Your task to perform on an android device: check out phone information Image 0: 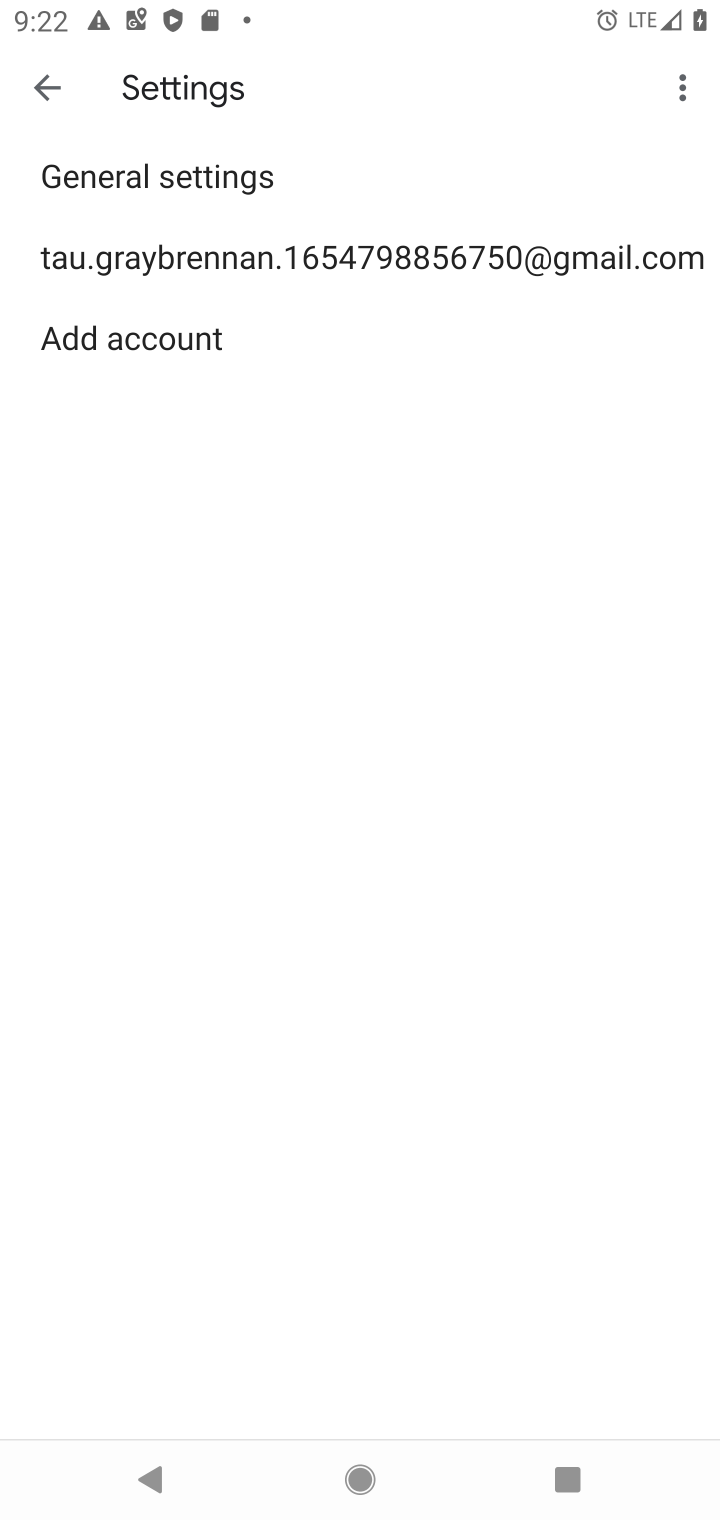
Step 0: press home button
Your task to perform on an android device: check out phone information Image 1: 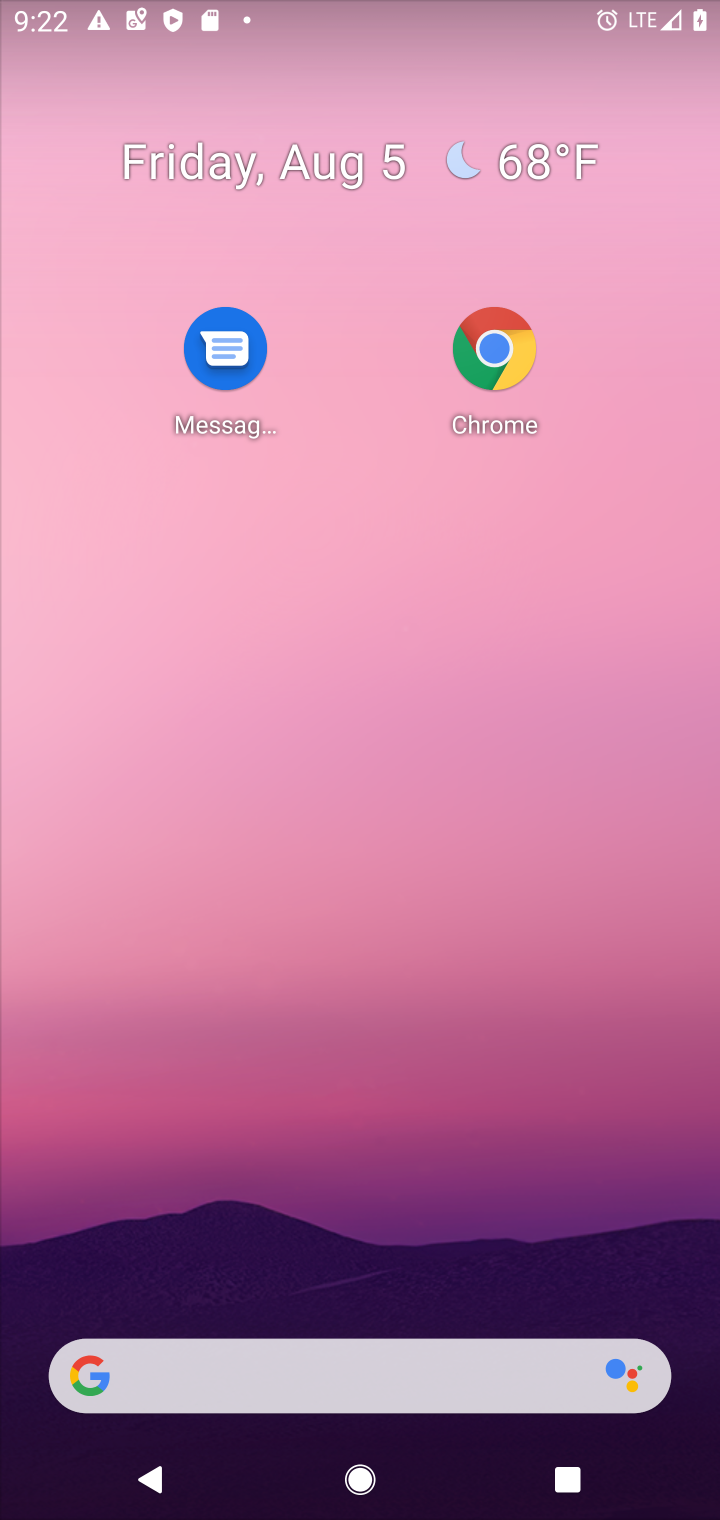
Step 1: drag from (491, 1402) to (452, 288)
Your task to perform on an android device: check out phone information Image 2: 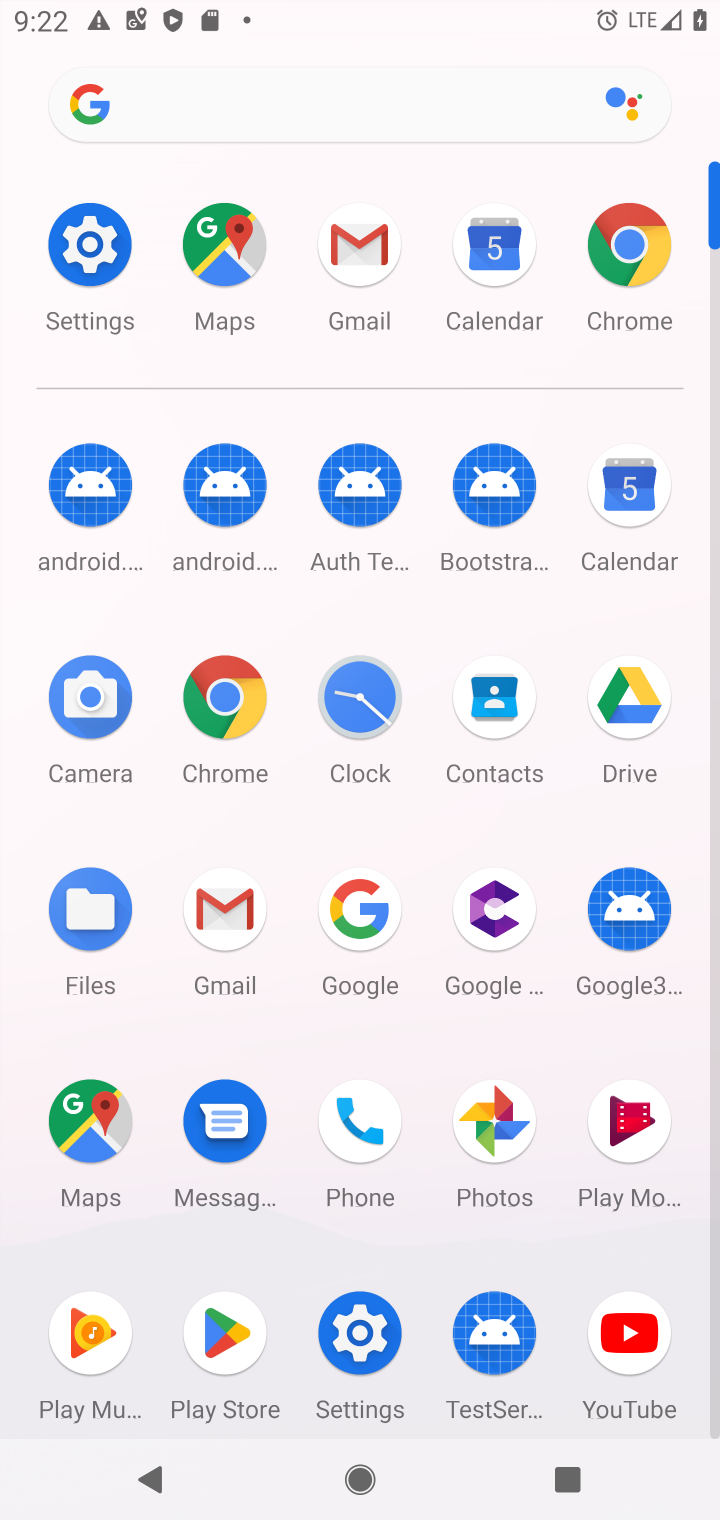
Step 2: click (64, 237)
Your task to perform on an android device: check out phone information Image 3: 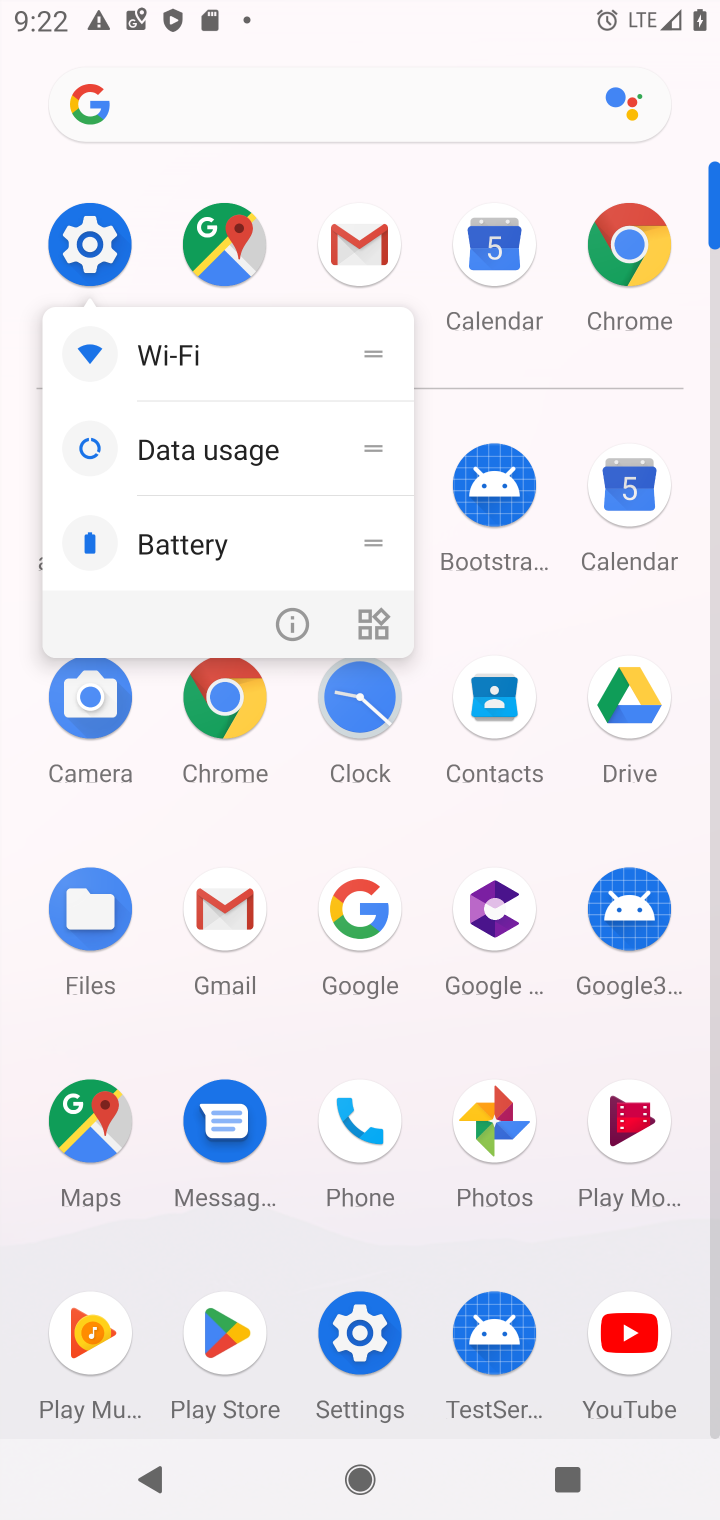
Step 3: click (71, 227)
Your task to perform on an android device: check out phone information Image 4: 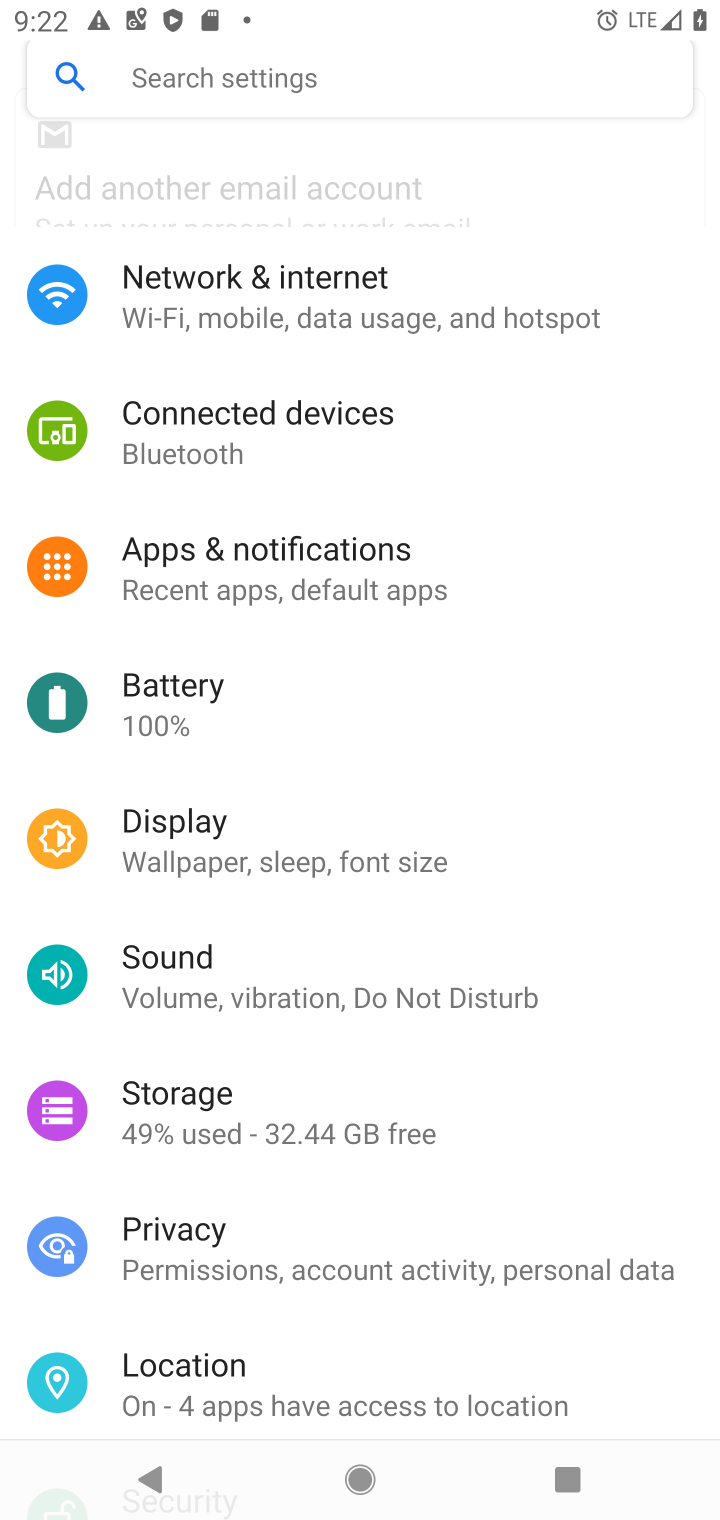
Step 4: click (247, 95)
Your task to perform on an android device: check out phone information Image 5: 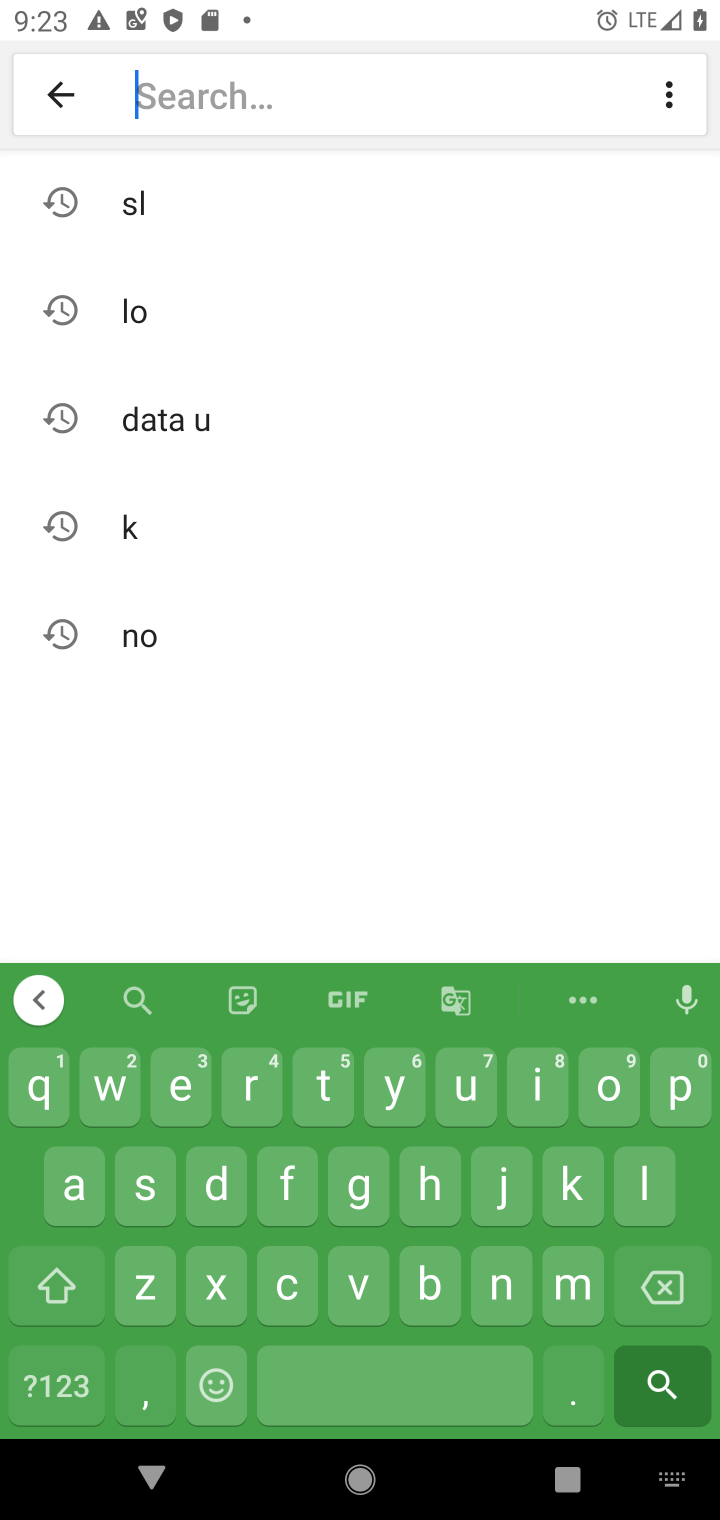
Step 5: click (77, 1186)
Your task to perform on an android device: check out phone information Image 6: 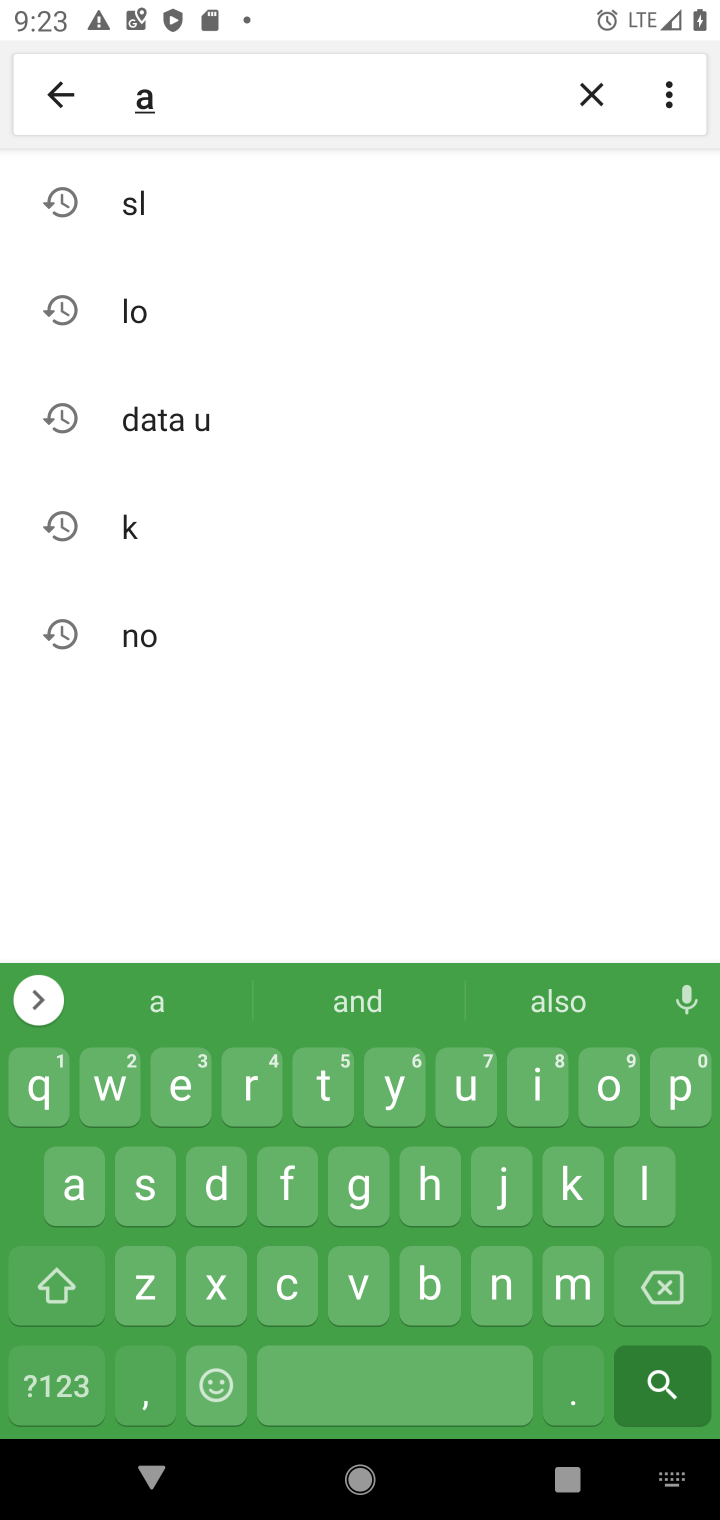
Step 6: click (429, 1292)
Your task to perform on an android device: check out phone information Image 7: 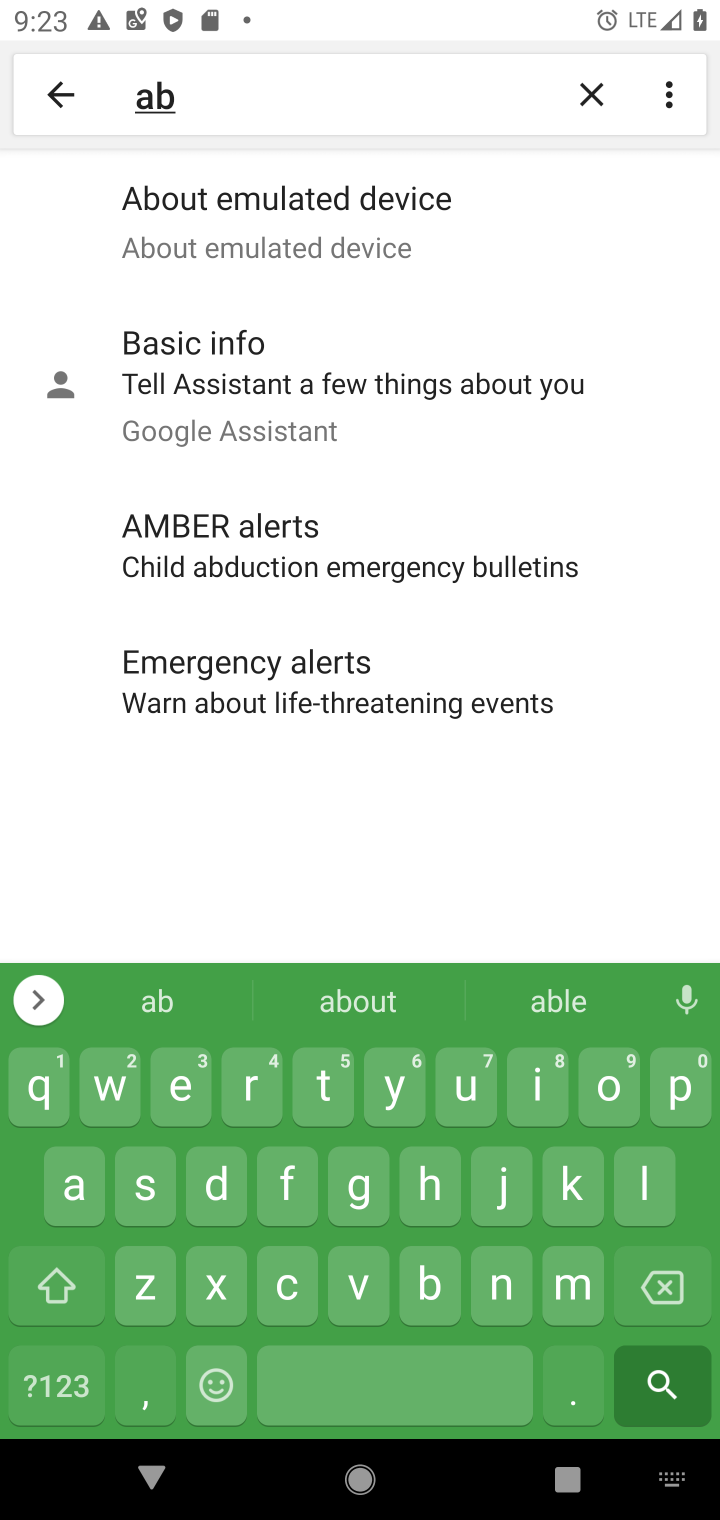
Step 7: click (201, 211)
Your task to perform on an android device: check out phone information Image 8: 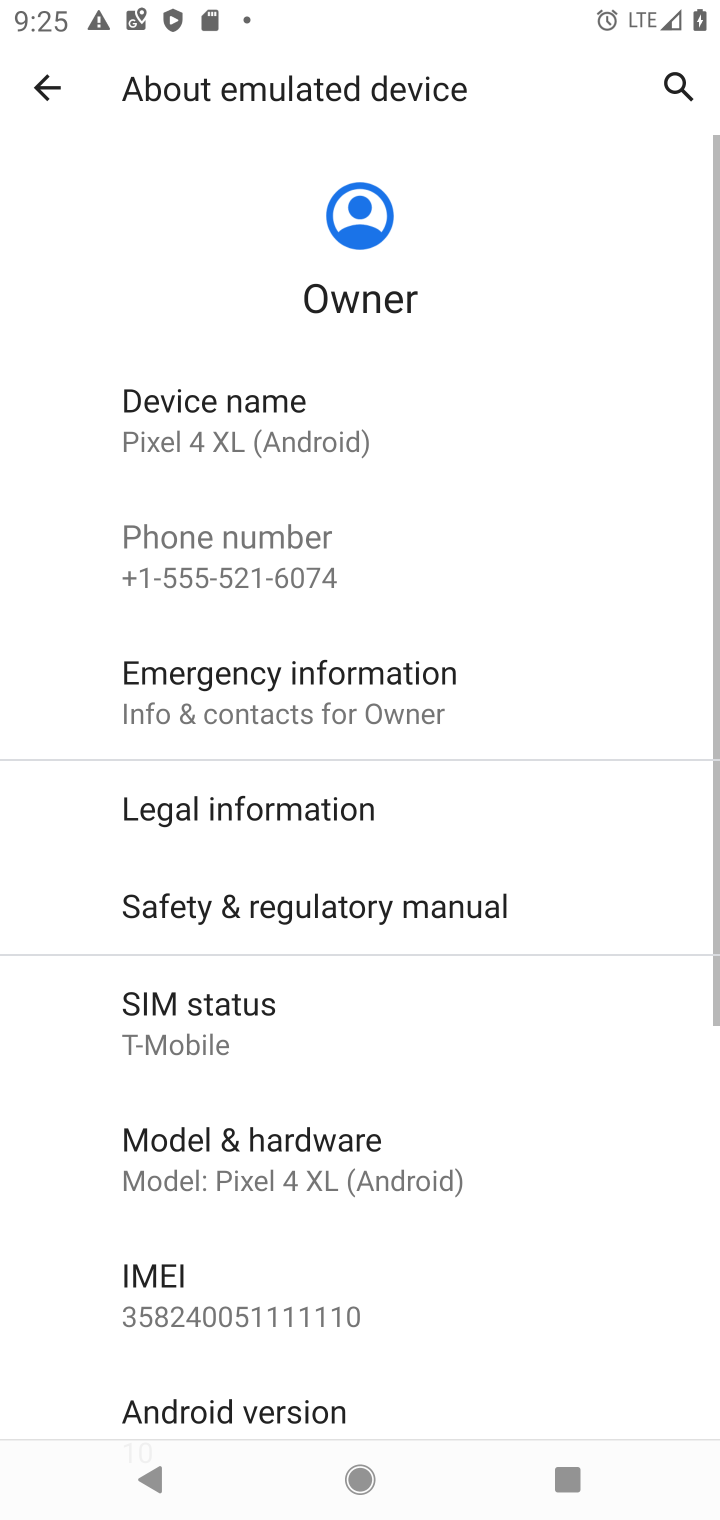
Step 8: task complete